Your task to perform on an android device: Clear the cart on walmart.com. Search for "razer nari" on walmart.com, select the first entry, add it to the cart, then select checkout. Image 0: 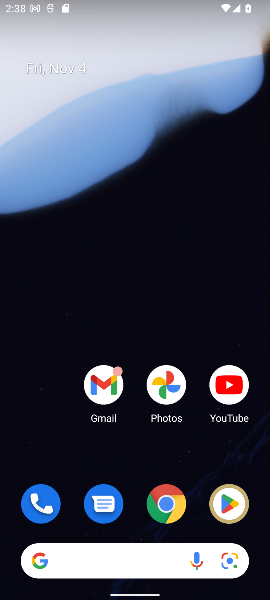
Step 0: click (160, 519)
Your task to perform on an android device: Clear the cart on walmart.com. Search for "razer nari" on walmart.com, select the first entry, add it to the cart, then select checkout. Image 1: 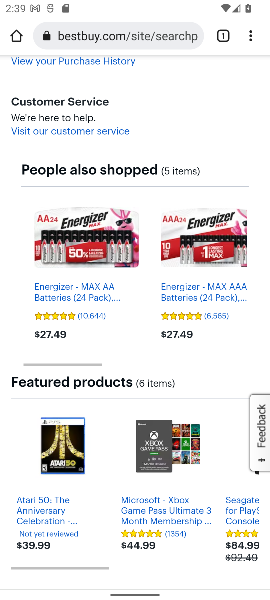
Step 1: click (111, 35)
Your task to perform on an android device: Clear the cart on walmart.com. Search for "razer nari" on walmart.com, select the first entry, add it to the cart, then select checkout. Image 2: 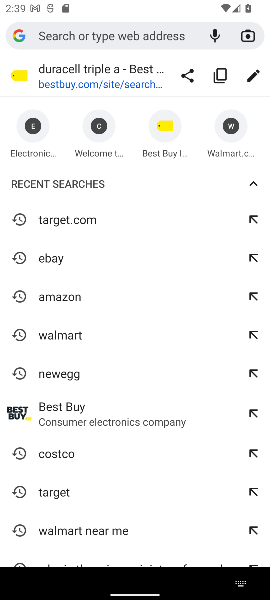
Step 2: type "walmart.com"
Your task to perform on an android device: Clear the cart on walmart.com. Search for "razer nari" on walmart.com, select the first entry, add it to the cart, then select checkout. Image 3: 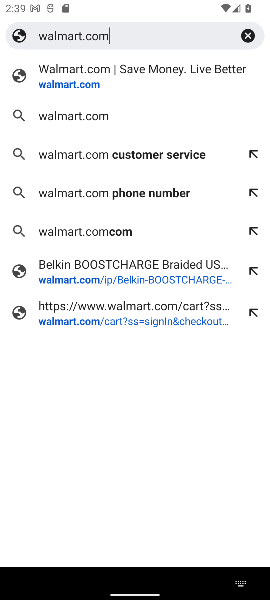
Step 3: click (83, 90)
Your task to perform on an android device: Clear the cart on walmart.com. Search for "razer nari" on walmart.com, select the first entry, add it to the cart, then select checkout. Image 4: 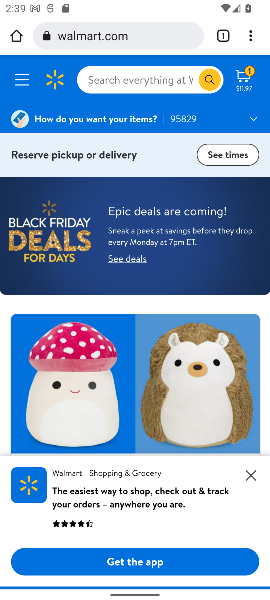
Step 4: click (239, 87)
Your task to perform on an android device: Clear the cart on walmart.com. Search for "razer nari" on walmart.com, select the first entry, add it to the cart, then select checkout. Image 5: 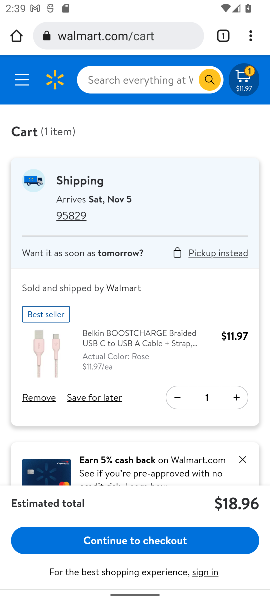
Step 5: click (36, 402)
Your task to perform on an android device: Clear the cart on walmart.com. Search for "razer nari" on walmart.com, select the first entry, add it to the cart, then select checkout. Image 6: 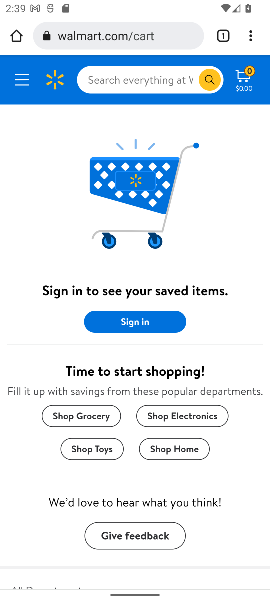
Step 6: click (142, 81)
Your task to perform on an android device: Clear the cart on walmart.com. Search for "razer nari" on walmart.com, select the first entry, add it to the cart, then select checkout. Image 7: 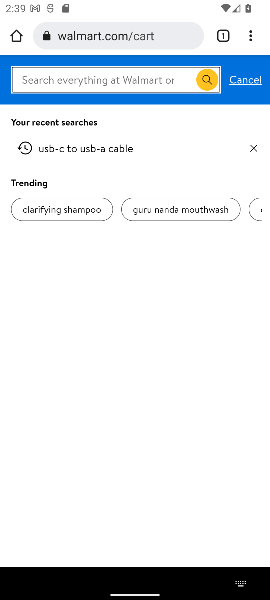
Step 7: type "razer nari"
Your task to perform on an android device: Clear the cart on walmart.com. Search for "razer nari" on walmart.com, select the first entry, add it to the cart, then select checkout. Image 8: 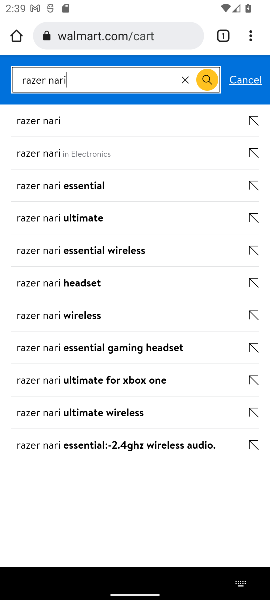
Step 8: click (53, 128)
Your task to perform on an android device: Clear the cart on walmart.com. Search for "razer nari" on walmart.com, select the first entry, add it to the cart, then select checkout. Image 9: 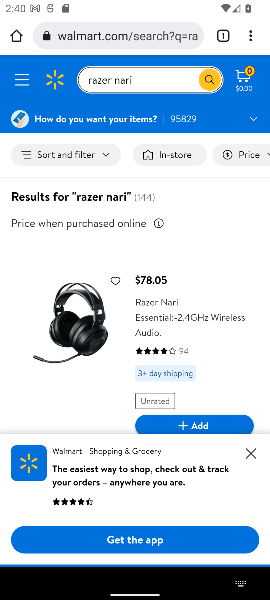
Step 9: drag from (126, 329) to (152, 230)
Your task to perform on an android device: Clear the cart on walmart.com. Search for "razer nari" on walmart.com, select the first entry, add it to the cart, then select checkout. Image 10: 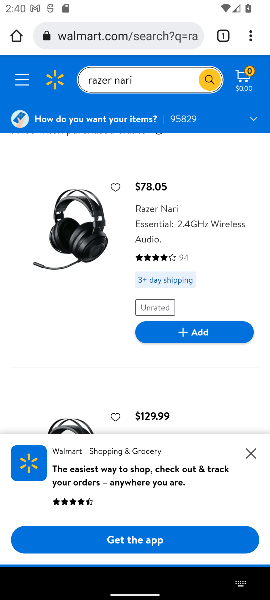
Step 10: click (208, 329)
Your task to perform on an android device: Clear the cart on walmart.com. Search for "razer nari" on walmart.com, select the first entry, add it to the cart, then select checkout. Image 11: 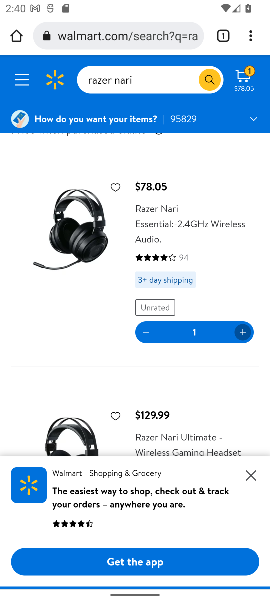
Step 11: click (246, 94)
Your task to perform on an android device: Clear the cart on walmart.com. Search for "razer nari" on walmart.com, select the first entry, add it to the cart, then select checkout. Image 12: 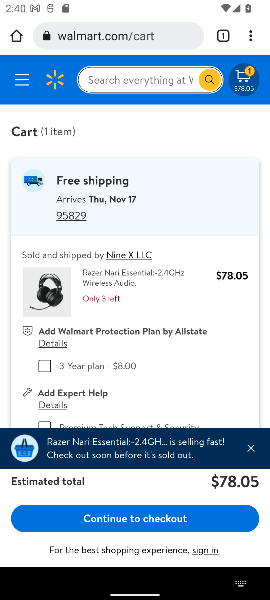
Step 12: click (137, 518)
Your task to perform on an android device: Clear the cart on walmart.com. Search for "razer nari" on walmart.com, select the first entry, add it to the cart, then select checkout. Image 13: 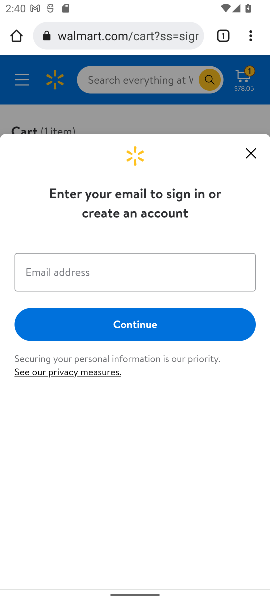
Step 13: task complete